Your task to perform on an android device: Show me popular games on the Play Store Image 0: 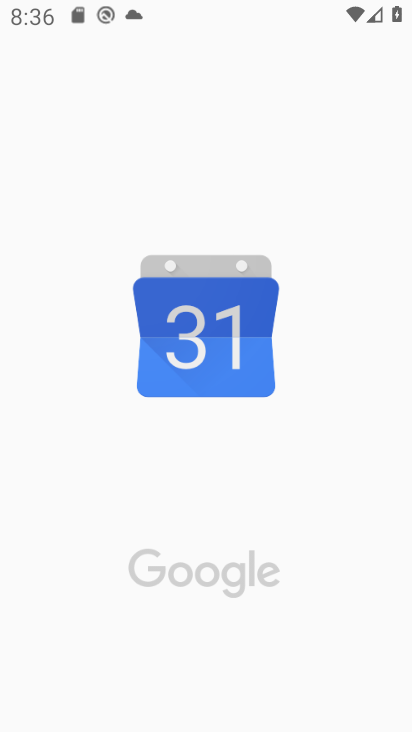
Step 0: drag from (332, 591) to (369, 84)
Your task to perform on an android device: Show me popular games on the Play Store Image 1: 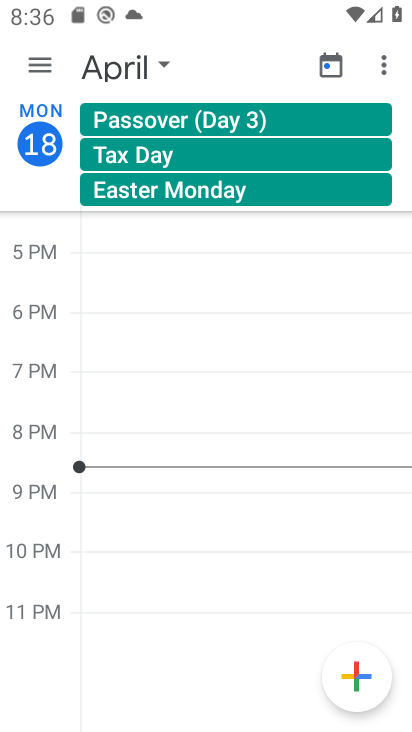
Step 1: press back button
Your task to perform on an android device: Show me popular games on the Play Store Image 2: 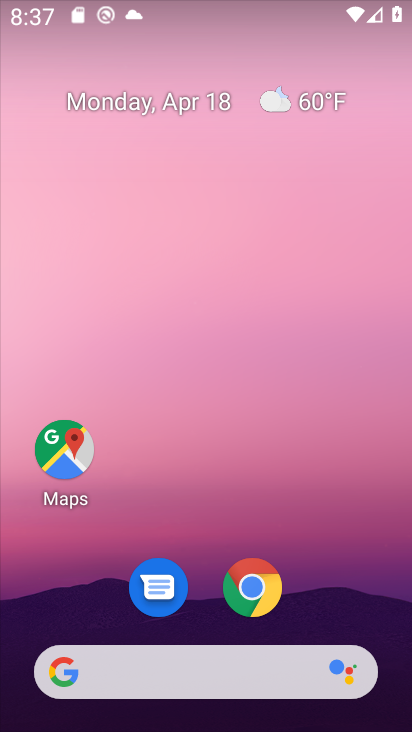
Step 2: drag from (346, 618) to (330, 196)
Your task to perform on an android device: Show me popular games on the Play Store Image 3: 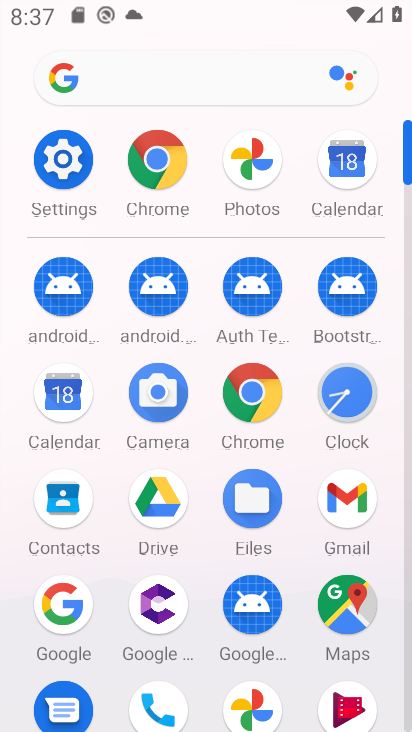
Step 3: click (409, 643)
Your task to perform on an android device: Show me popular games on the Play Store Image 4: 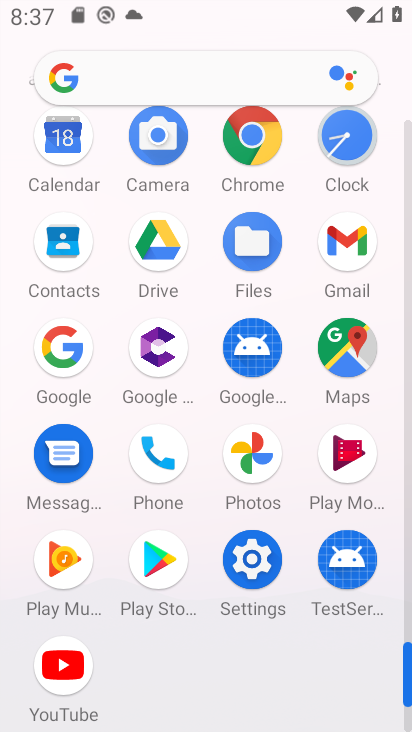
Step 4: click (80, 687)
Your task to perform on an android device: Show me popular games on the Play Store Image 5: 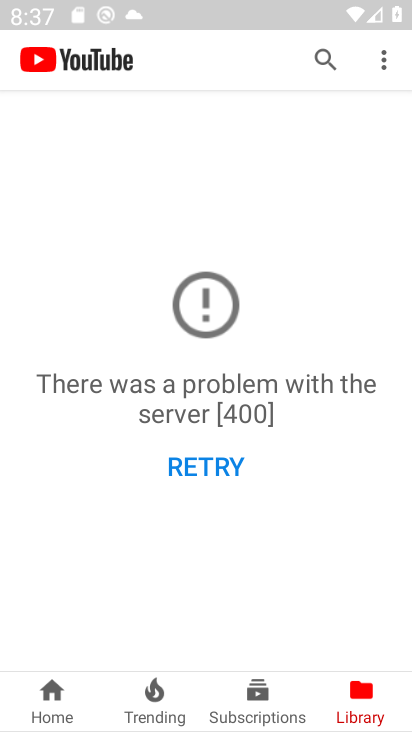
Step 5: press home button
Your task to perform on an android device: Show me popular games on the Play Store Image 6: 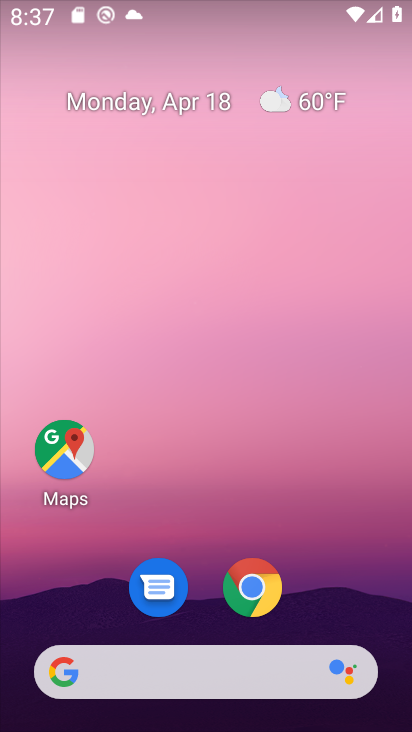
Step 6: drag from (326, 623) to (352, 138)
Your task to perform on an android device: Show me popular games on the Play Store Image 7: 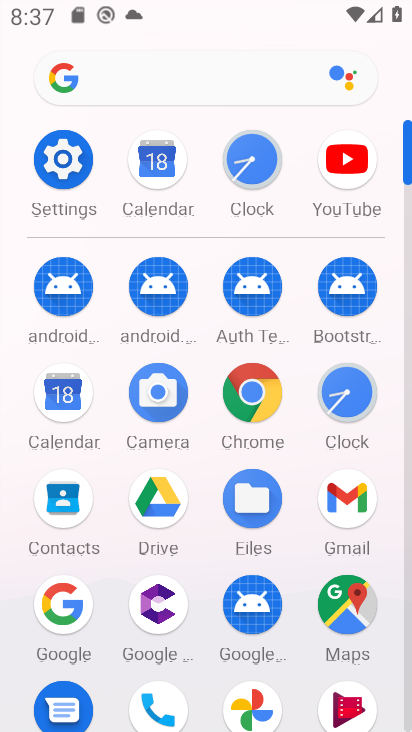
Step 7: click (407, 499)
Your task to perform on an android device: Show me popular games on the Play Store Image 8: 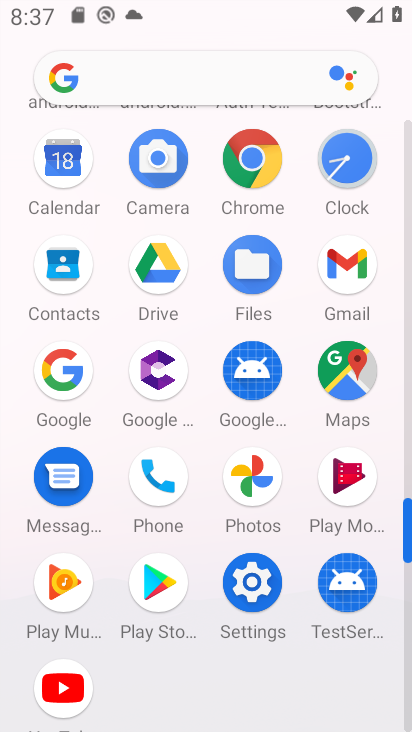
Step 8: click (54, 698)
Your task to perform on an android device: Show me popular games on the Play Store Image 9: 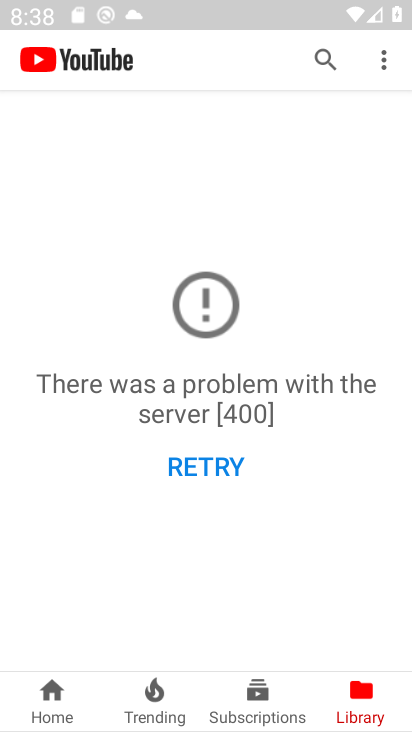
Step 9: press home button
Your task to perform on an android device: Show me popular games on the Play Store Image 10: 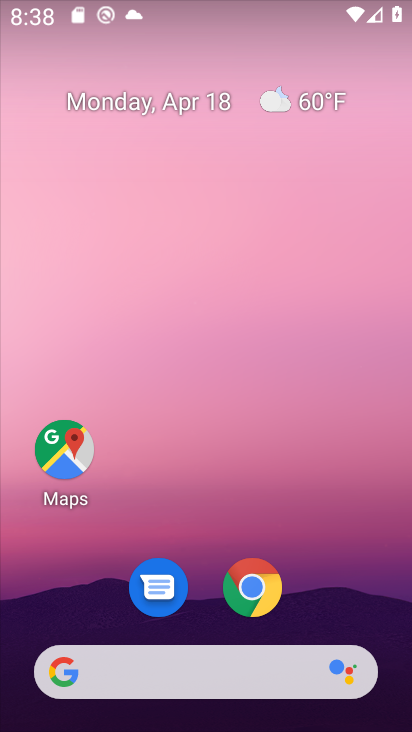
Step 10: drag from (364, 603) to (188, 49)
Your task to perform on an android device: Show me popular games on the Play Store Image 11: 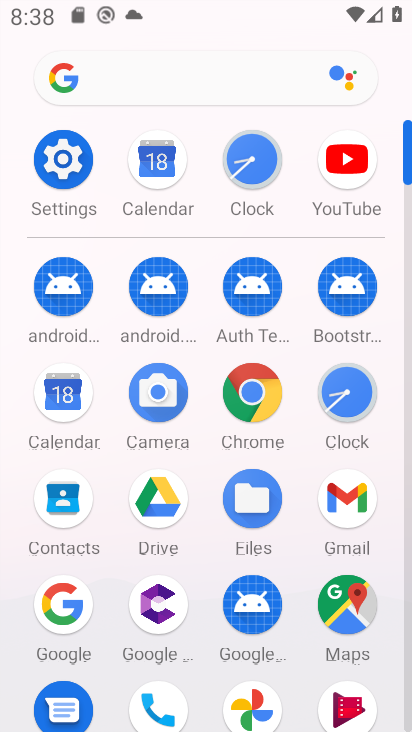
Step 11: click (406, 703)
Your task to perform on an android device: Show me popular games on the Play Store Image 12: 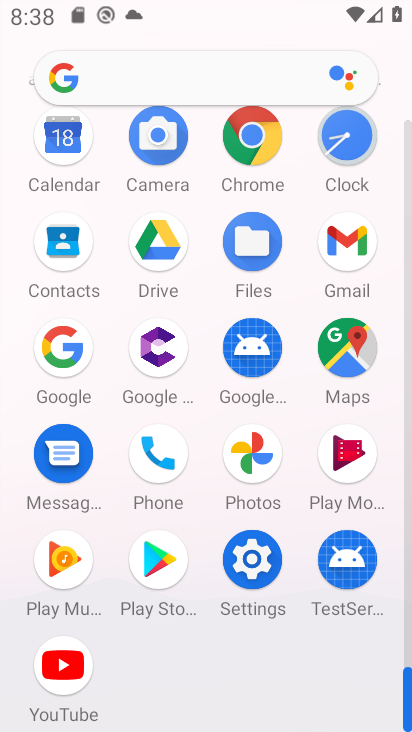
Step 12: click (144, 570)
Your task to perform on an android device: Show me popular games on the Play Store Image 13: 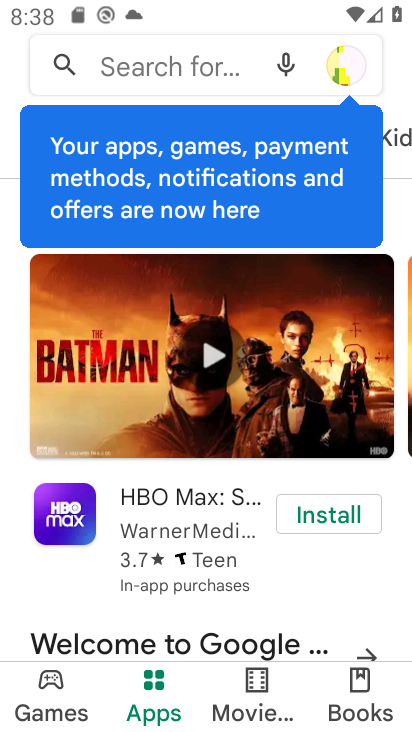
Step 13: click (53, 708)
Your task to perform on an android device: Show me popular games on the Play Store Image 14: 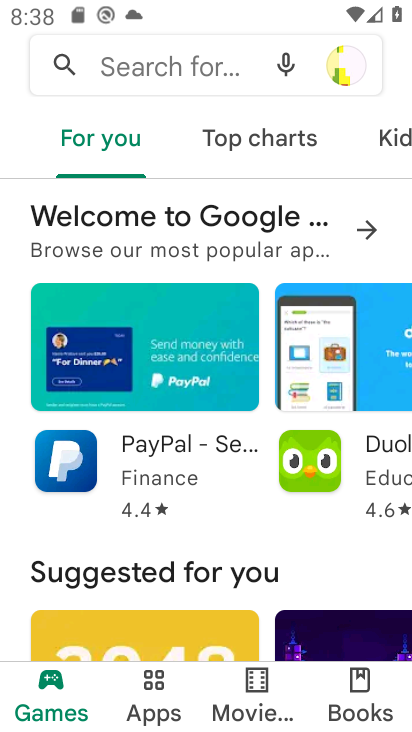
Step 14: task complete